Your task to perform on an android device: turn notification dots off Image 0: 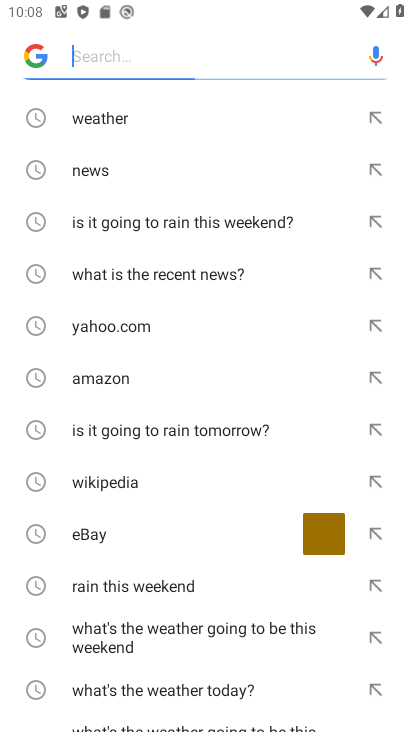
Step 0: press home button
Your task to perform on an android device: turn notification dots off Image 1: 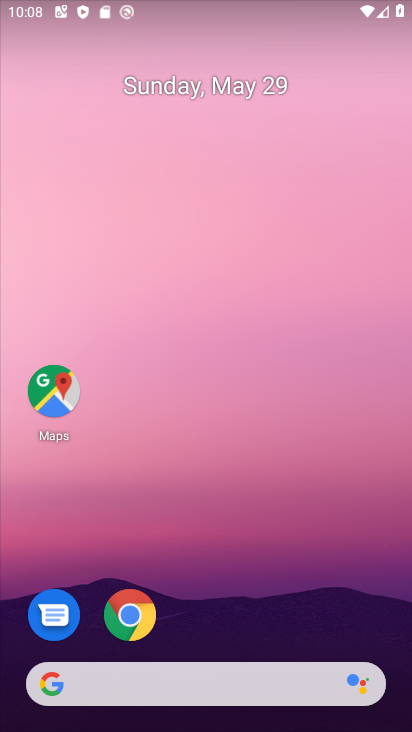
Step 1: drag from (202, 638) to (344, 28)
Your task to perform on an android device: turn notification dots off Image 2: 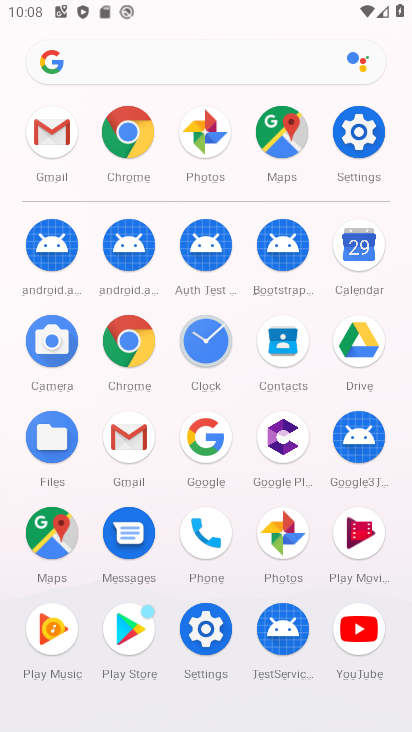
Step 2: click (368, 146)
Your task to perform on an android device: turn notification dots off Image 3: 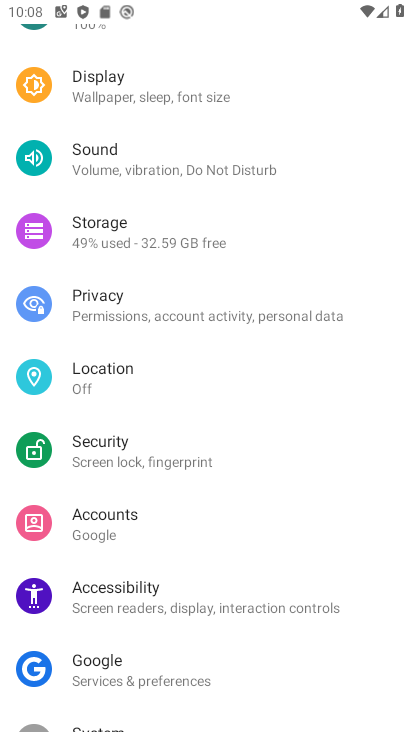
Step 3: drag from (234, 510) to (208, 237)
Your task to perform on an android device: turn notification dots off Image 4: 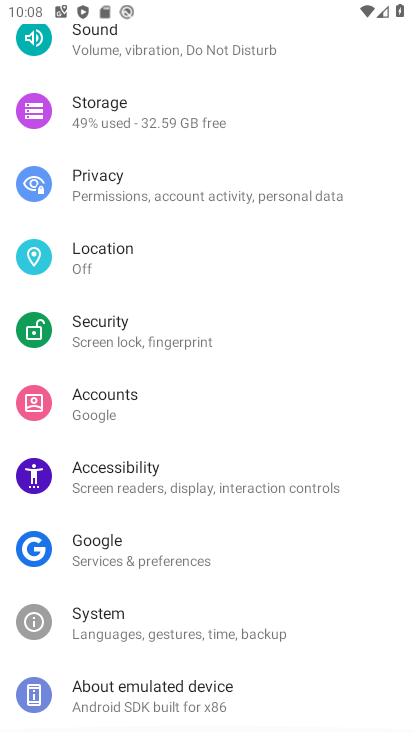
Step 4: drag from (207, 212) to (197, 656)
Your task to perform on an android device: turn notification dots off Image 5: 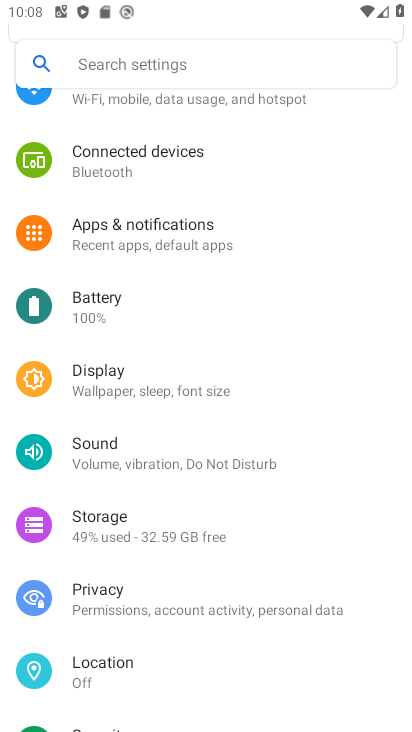
Step 5: click (155, 235)
Your task to perform on an android device: turn notification dots off Image 6: 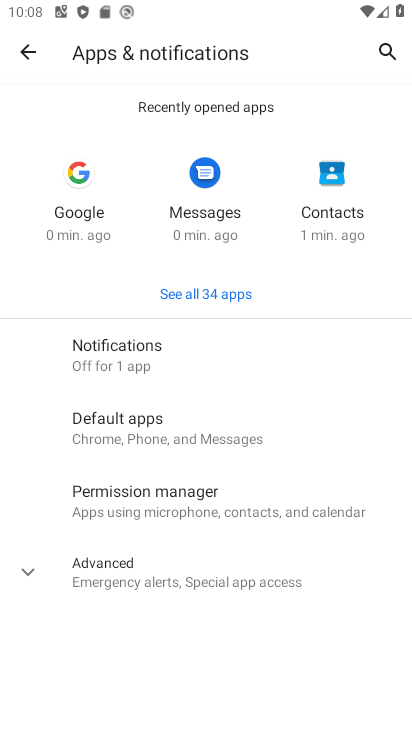
Step 6: click (172, 357)
Your task to perform on an android device: turn notification dots off Image 7: 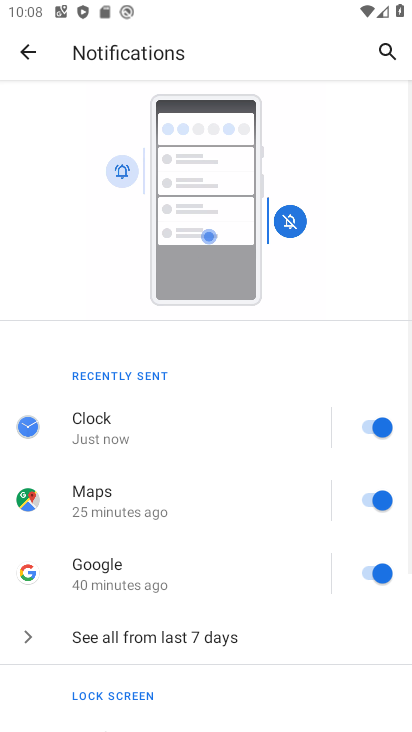
Step 7: drag from (208, 621) to (171, 64)
Your task to perform on an android device: turn notification dots off Image 8: 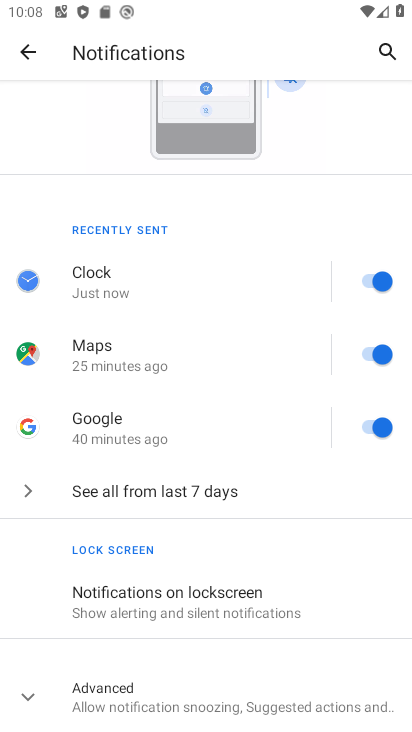
Step 8: click (148, 678)
Your task to perform on an android device: turn notification dots off Image 9: 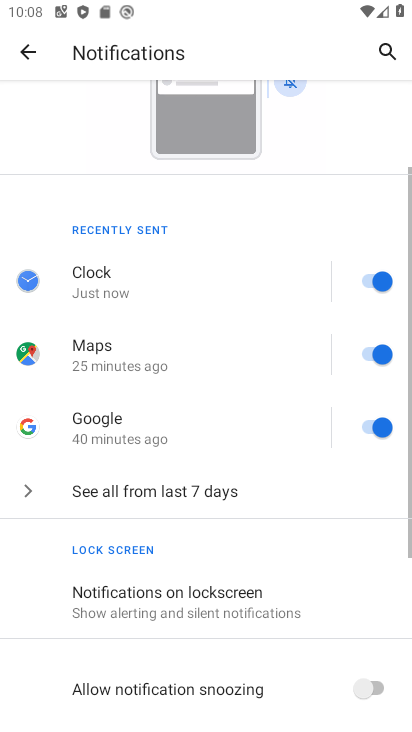
Step 9: drag from (148, 678) to (119, 291)
Your task to perform on an android device: turn notification dots off Image 10: 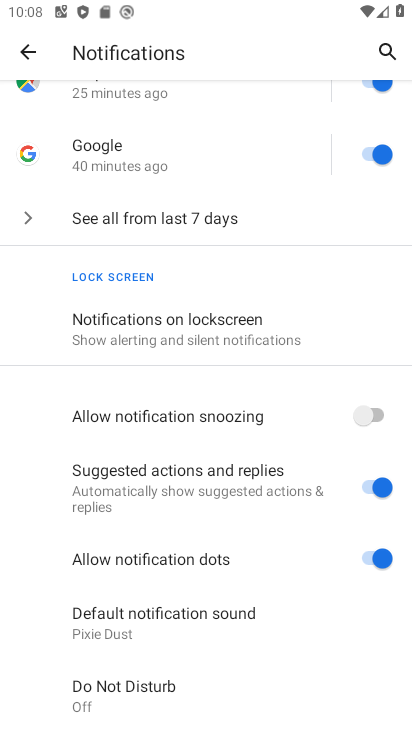
Step 10: click (364, 565)
Your task to perform on an android device: turn notification dots off Image 11: 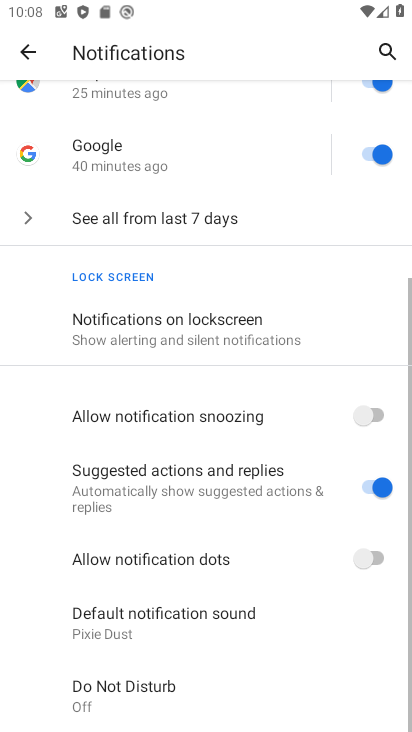
Step 11: task complete